Your task to perform on an android device: toggle sleep mode Image 0: 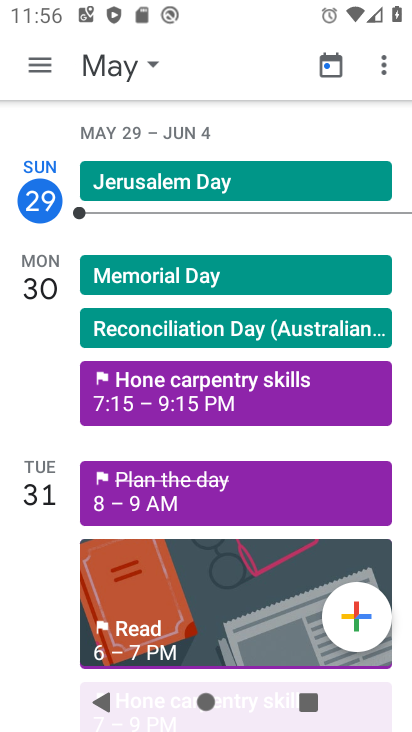
Step 0: press home button
Your task to perform on an android device: toggle sleep mode Image 1: 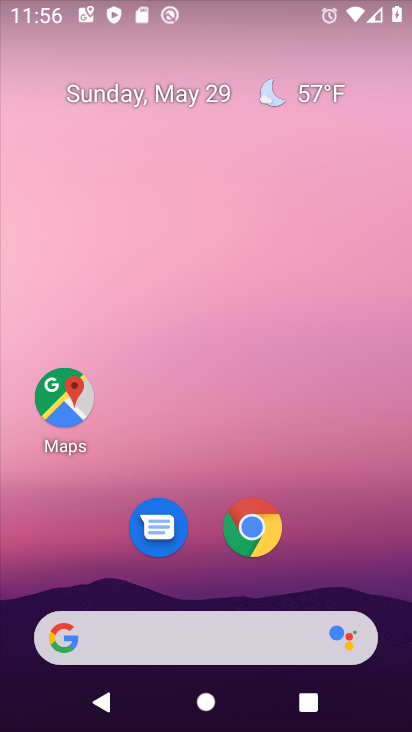
Step 1: drag from (173, 586) to (152, 139)
Your task to perform on an android device: toggle sleep mode Image 2: 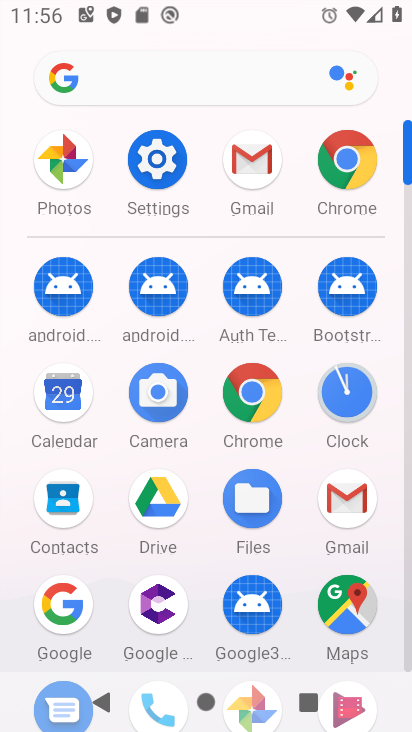
Step 2: click (156, 155)
Your task to perform on an android device: toggle sleep mode Image 3: 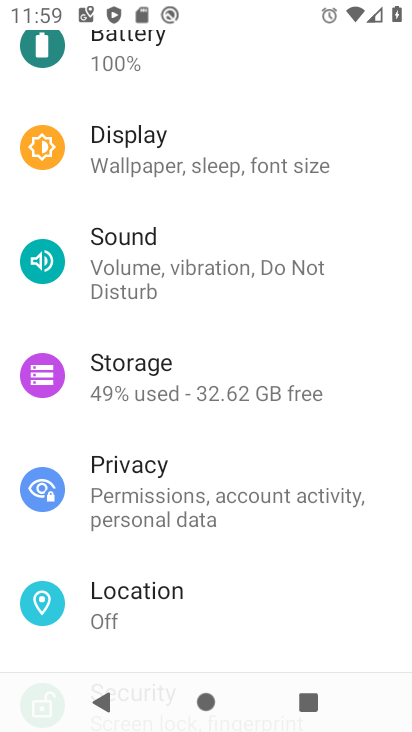
Step 3: task complete